Your task to perform on an android device: Open the phone app and click the voicemail tab. Image 0: 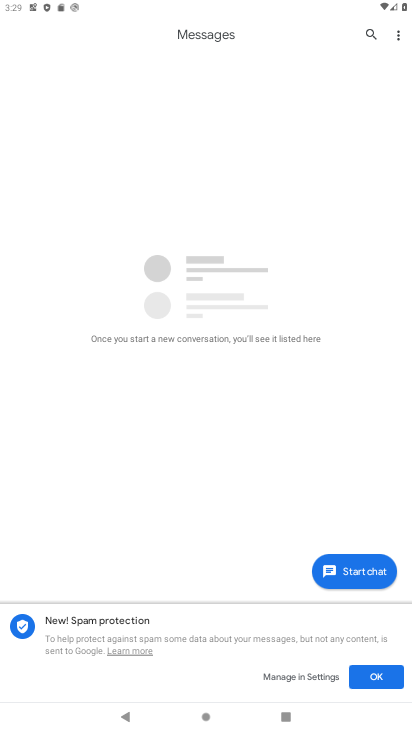
Step 0: press back button
Your task to perform on an android device: Open the phone app and click the voicemail tab. Image 1: 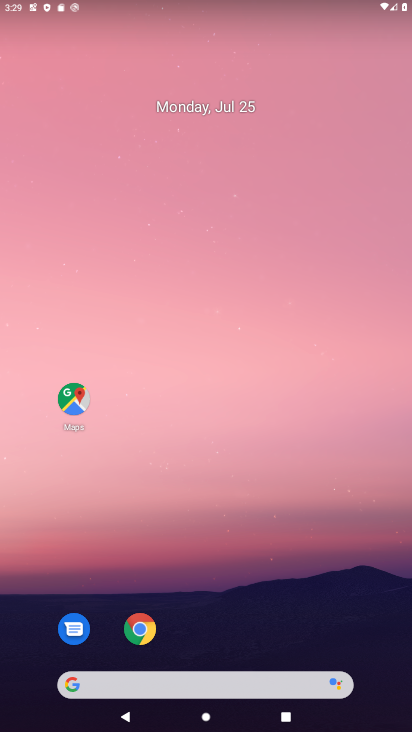
Step 1: drag from (101, 702) to (371, 3)
Your task to perform on an android device: Open the phone app and click the voicemail tab. Image 2: 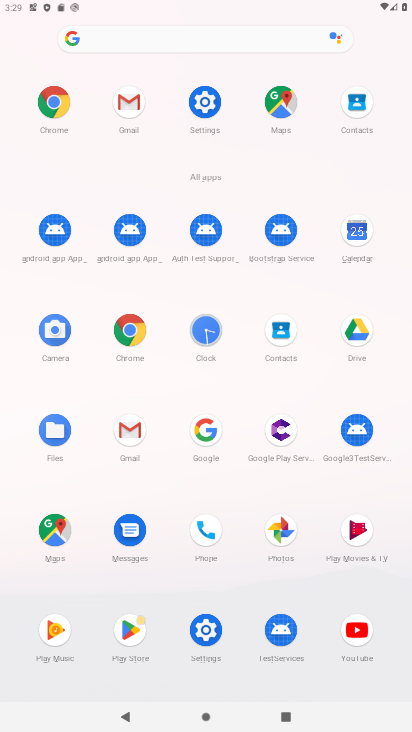
Step 2: drag from (194, 561) to (212, 363)
Your task to perform on an android device: Open the phone app and click the voicemail tab. Image 3: 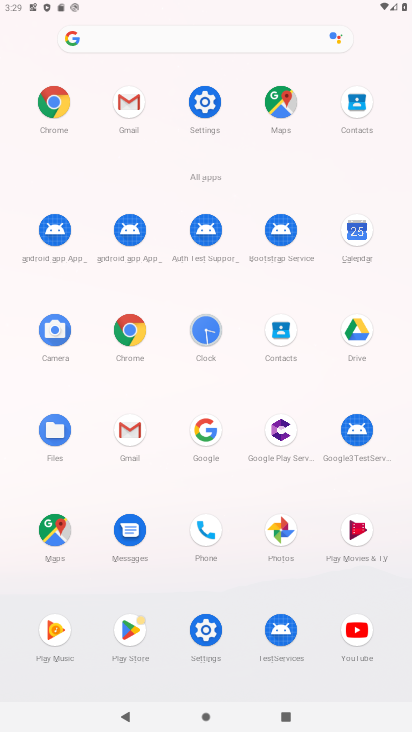
Step 3: click (207, 536)
Your task to perform on an android device: Open the phone app and click the voicemail tab. Image 4: 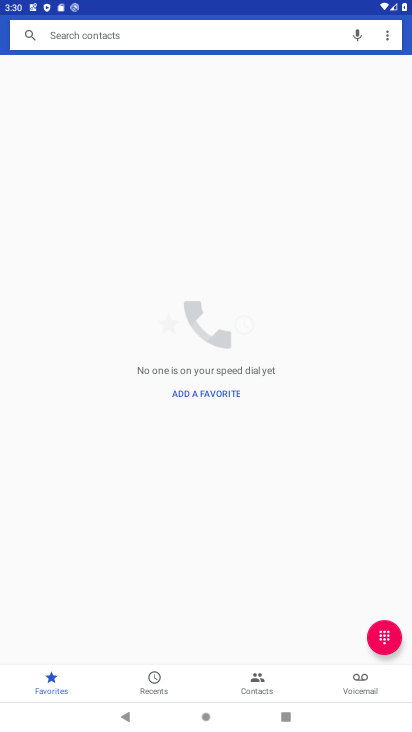
Step 4: click (356, 680)
Your task to perform on an android device: Open the phone app and click the voicemail tab. Image 5: 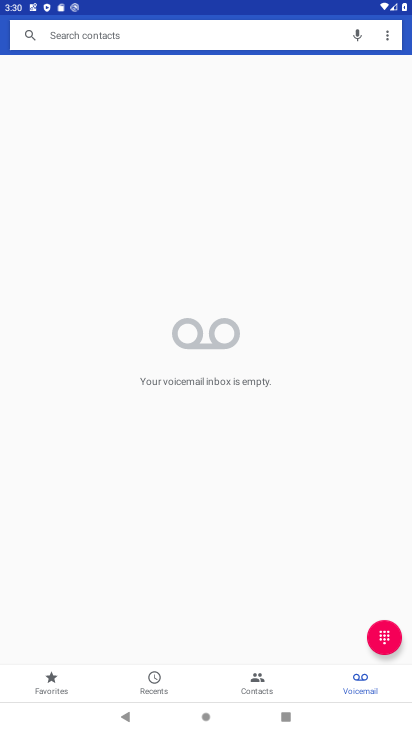
Step 5: task complete